Your task to perform on an android device: Search for razer huntsman on costco, select the first entry, add it to the cart, then select checkout. Image 0: 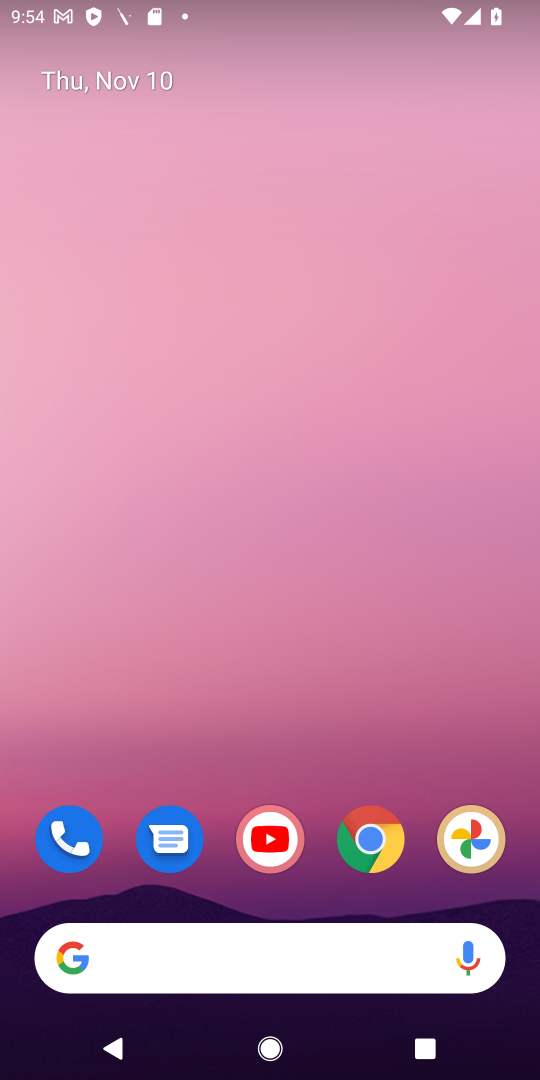
Step 0: click (387, 837)
Your task to perform on an android device: Search for razer huntsman on costco, select the first entry, add it to the cart, then select checkout. Image 1: 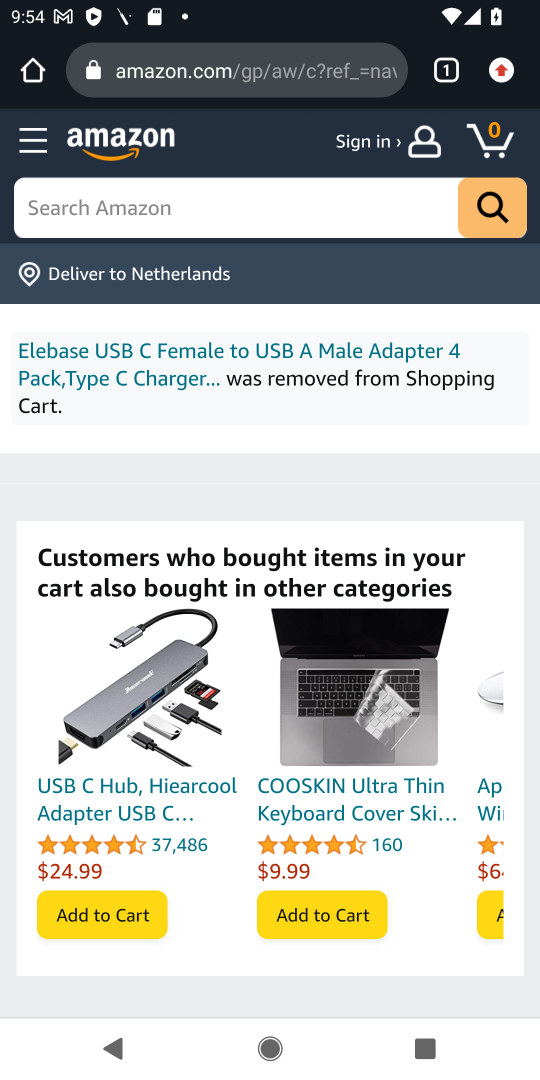
Step 1: click (315, 65)
Your task to perform on an android device: Search for razer huntsman on costco, select the first entry, add it to the cart, then select checkout. Image 2: 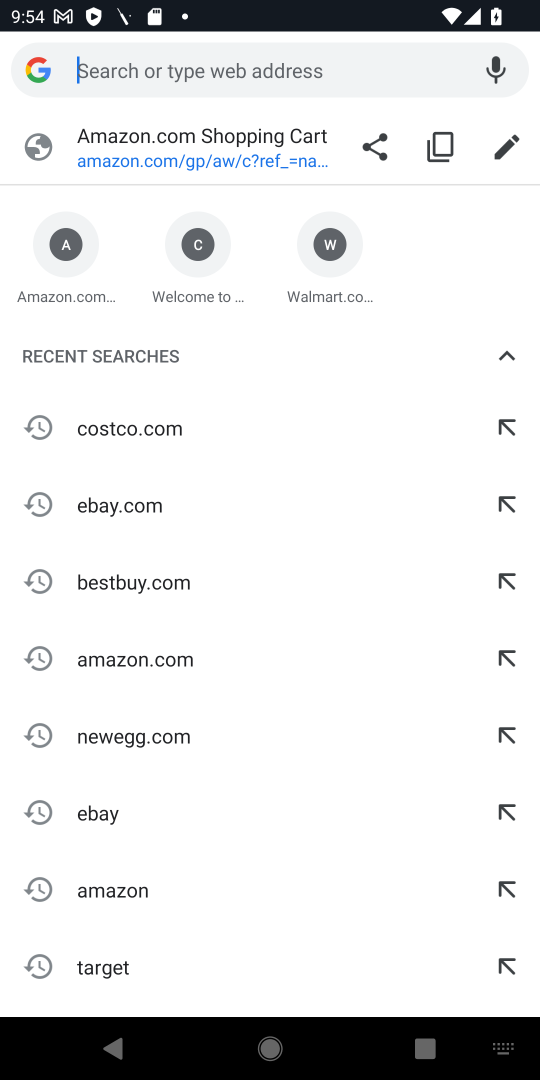
Step 2: type "costco"
Your task to perform on an android device: Search for razer huntsman on costco, select the first entry, add it to the cart, then select checkout. Image 3: 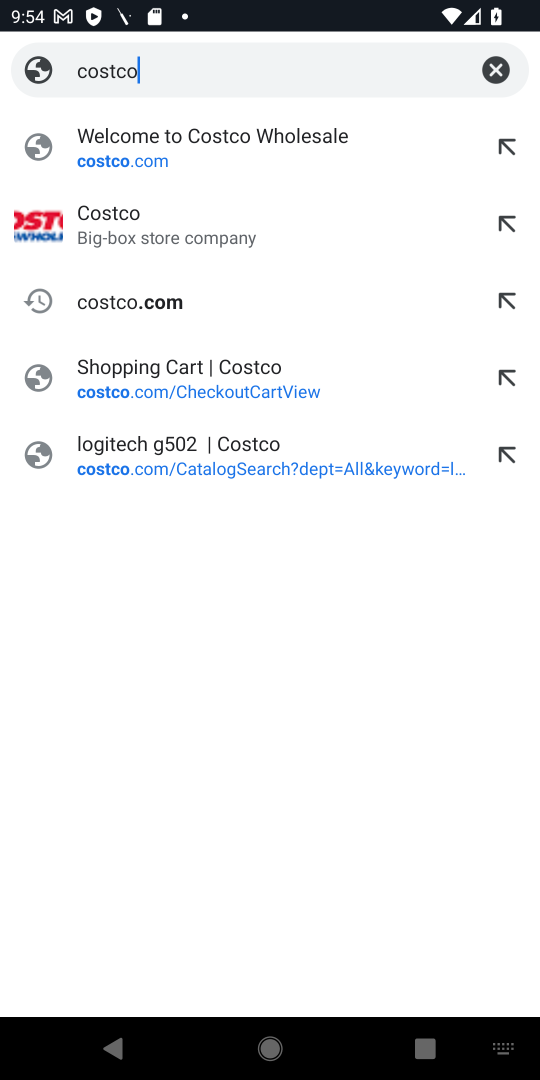
Step 3: click (145, 242)
Your task to perform on an android device: Search for razer huntsman on costco, select the first entry, add it to the cart, then select checkout. Image 4: 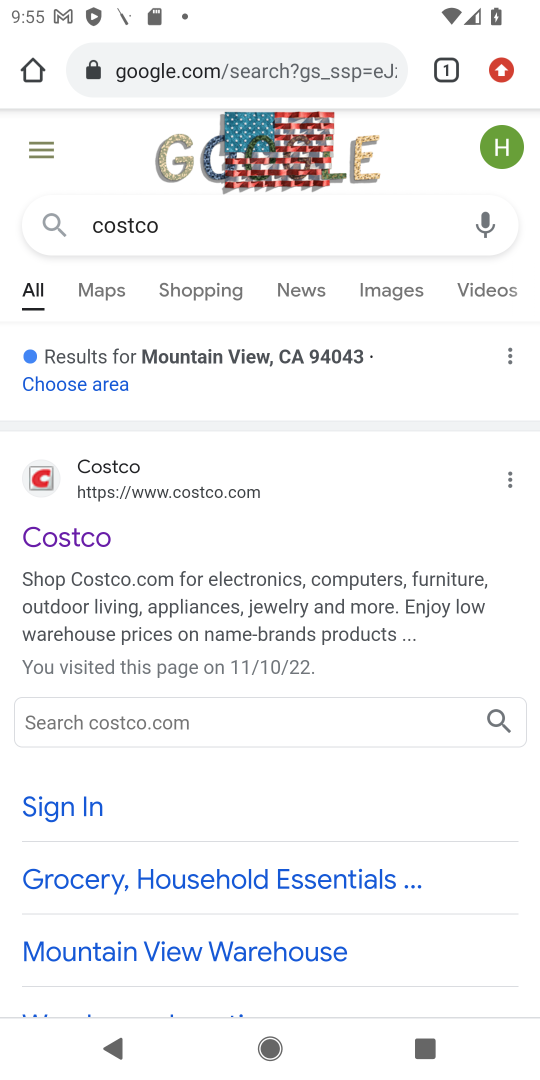
Step 4: click (214, 492)
Your task to perform on an android device: Search for razer huntsman on costco, select the first entry, add it to the cart, then select checkout. Image 5: 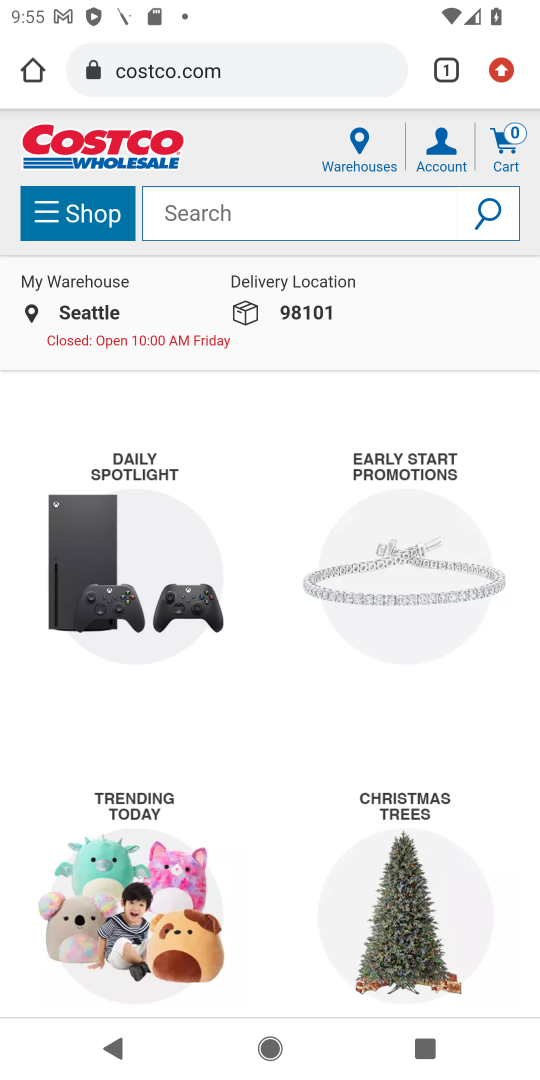
Step 5: click (424, 194)
Your task to perform on an android device: Search for razer huntsman on costco, select the first entry, add it to the cart, then select checkout. Image 6: 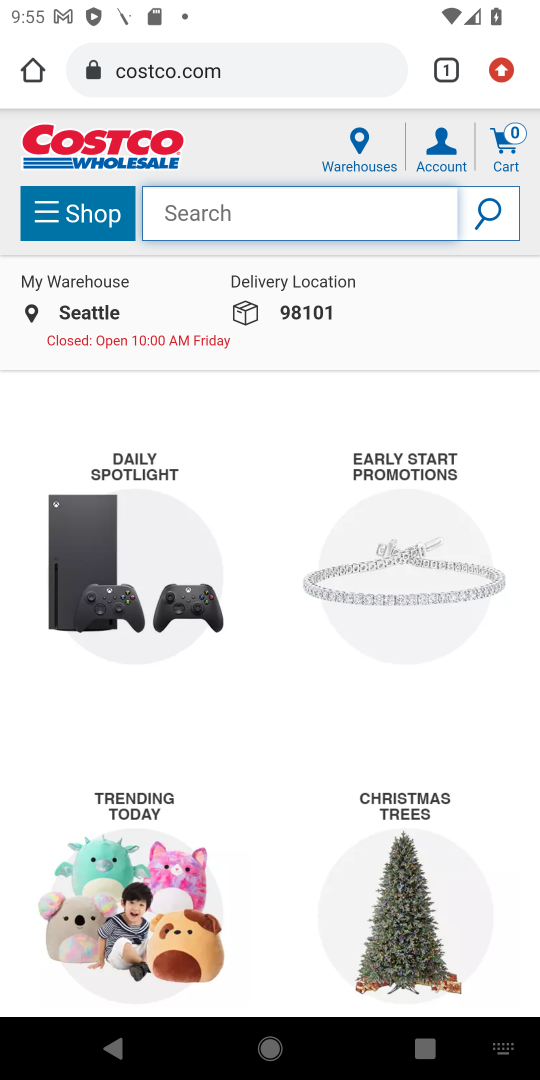
Step 6: type "razer huntsman"
Your task to perform on an android device: Search for razer huntsman on costco, select the first entry, add it to the cart, then select checkout. Image 7: 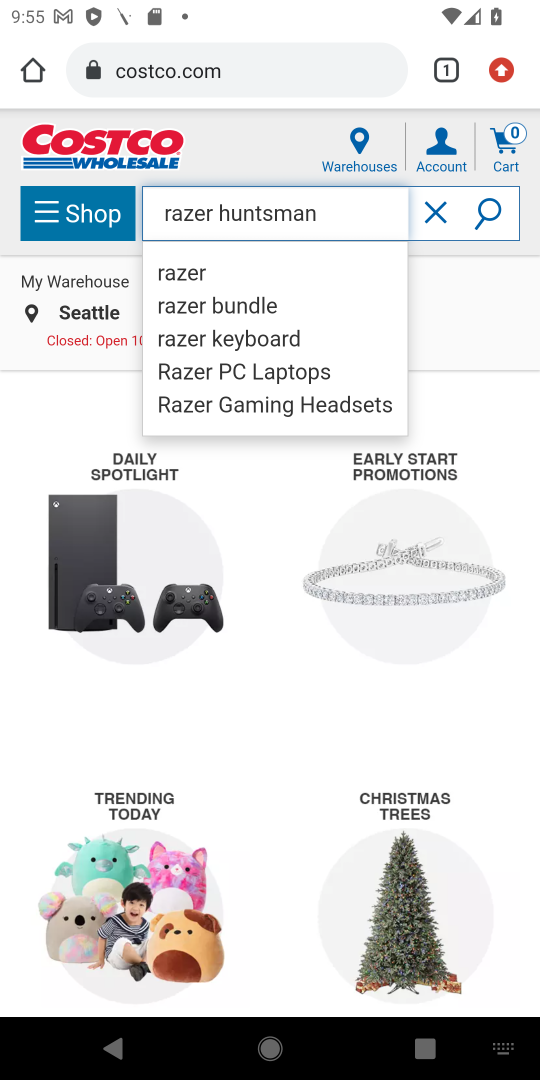
Step 7: click (506, 301)
Your task to perform on an android device: Search for razer huntsman on costco, select the first entry, add it to the cart, then select checkout. Image 8: 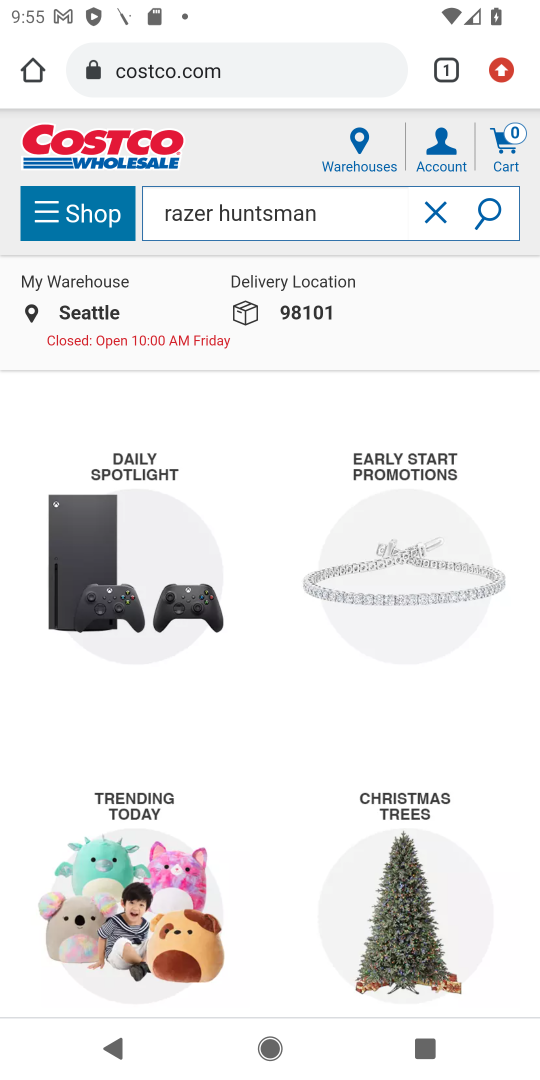
Step 8: task complete